Your task to perform on an android device: delete a single message in the gmail app Image 0: 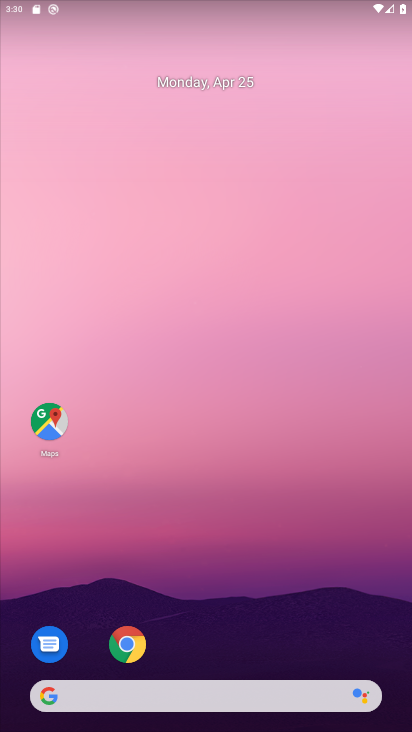
Step 0: drag from (208, 649) to (201, 137)
Your task to perform on an android device: delete a single message in the gmail app Image 1: 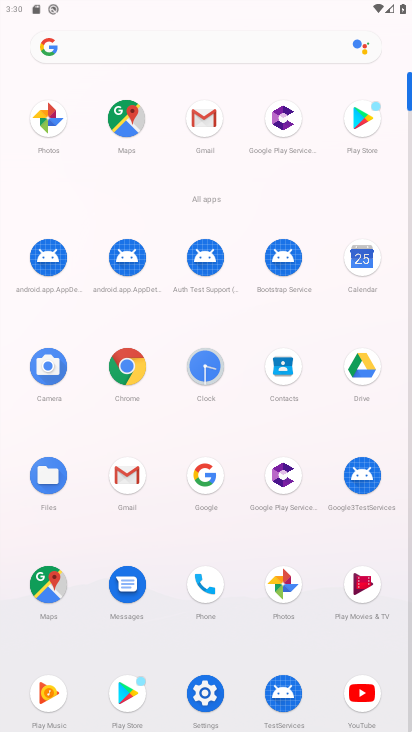
Step 1: click (202, 120)
Your task to perform on an android device: delete a single message in the gmail app Image 2: 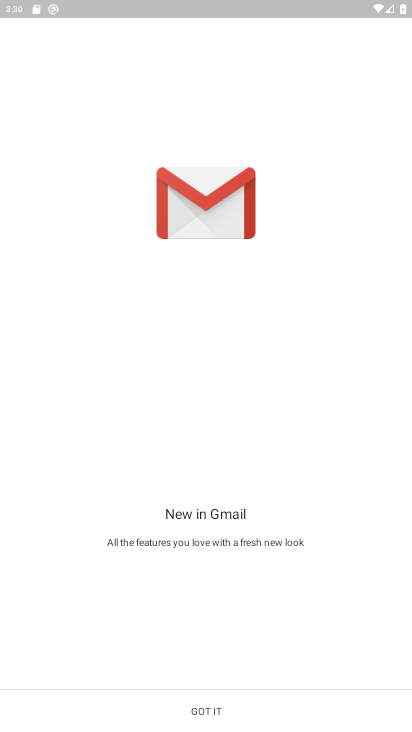
Step 2: click (212, 712)
Your task to perform on an android device: delete a single message in the gmail app Image 3: 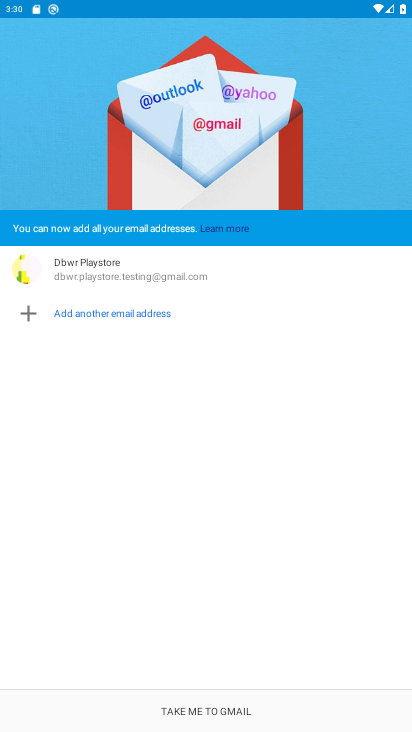
Step 3: click (212, 712)
Your task to perform on an android device: delete a single message in the gmail app Image 4: 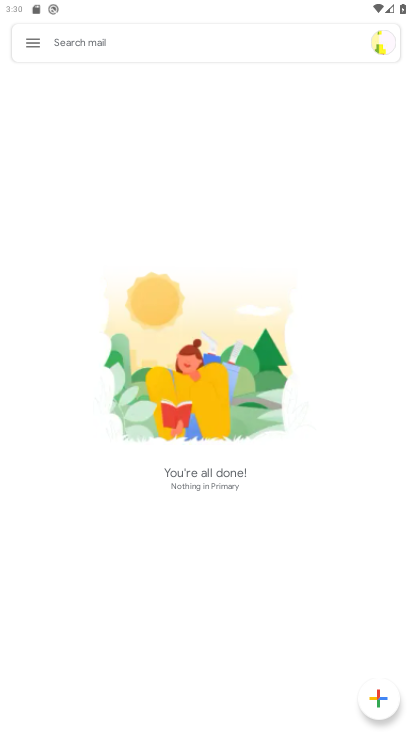
Step 4: click (29, 47)
Your task to perform on an android device: delete a single message in the gmail app Image 5: 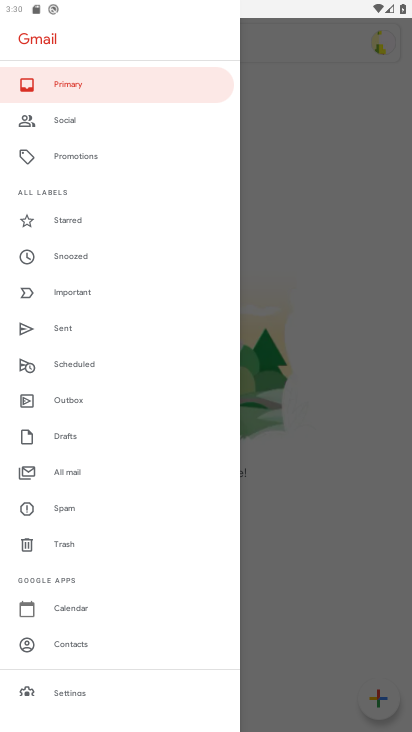
Step 5: click (114, 475)
Your task to perform on an android device: delete a single message in the gmail app Image 6: 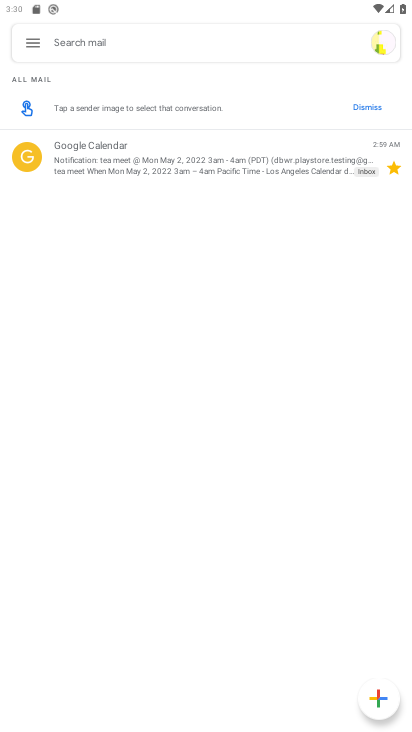
Step 6: click (286, 173)
Your task to perform on an android device: delete a single message in the gmail app Image 7: 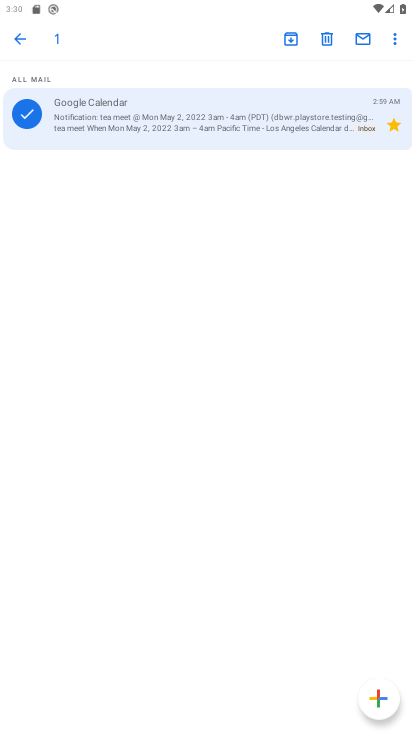
Step 7: click (321, 49)
Your task to perform on an android device: delete a single message in the gmail app Image 8: 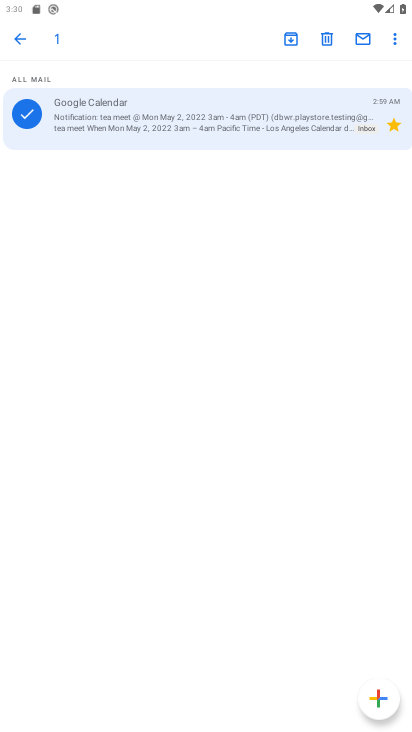
Step 8: click (324, 35)
Your task to perform on an android device: delete a single message in the gmail app Image 9: 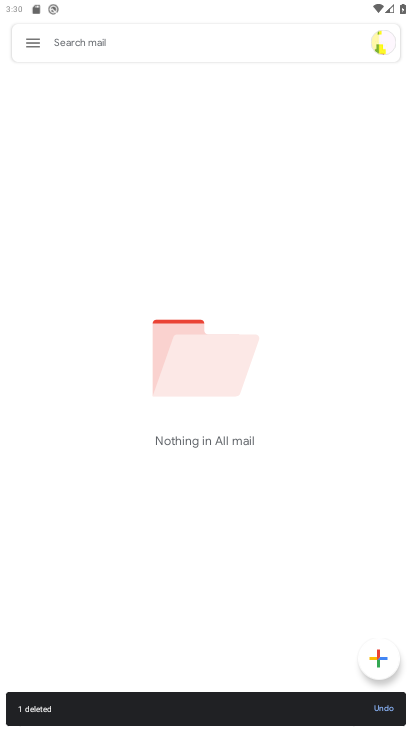
Step 9: task complete